Your task to perform on an android device: Go to eBay Image 0: 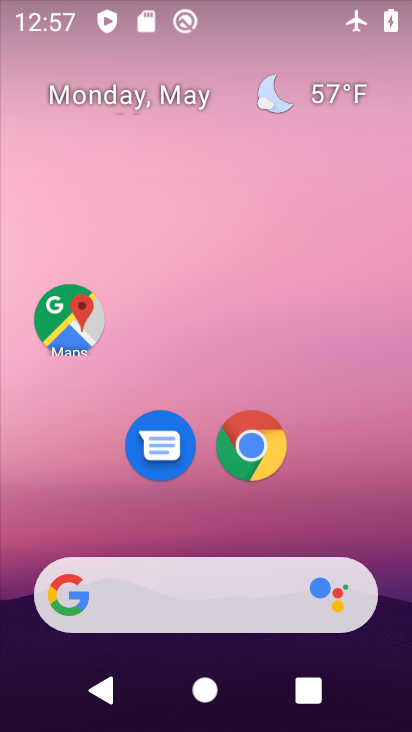
Step 0: drag from (386, 569) to (348, 166)
Your task to perform on an android device: Go to eBay Image 1: 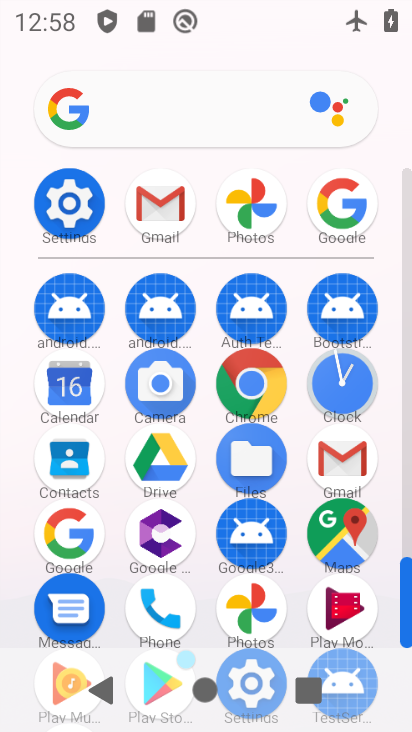
Step 1: click (236, 401)
Your task to perform on an android device: Go to eBay Image 2: 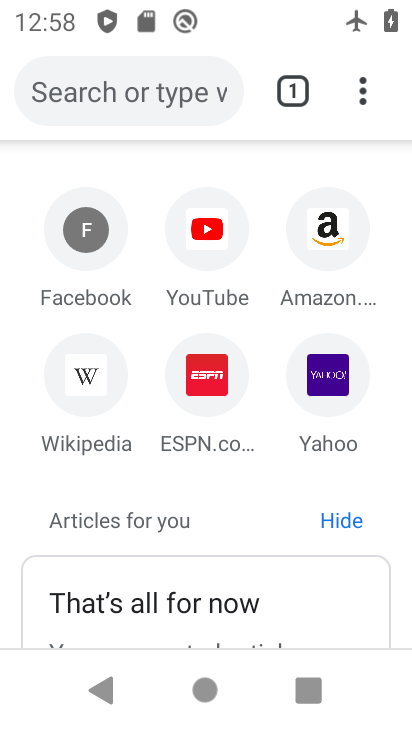
Step 2: click (142, 90)
Your task to perform on an android device: Go to eBay Image 3: 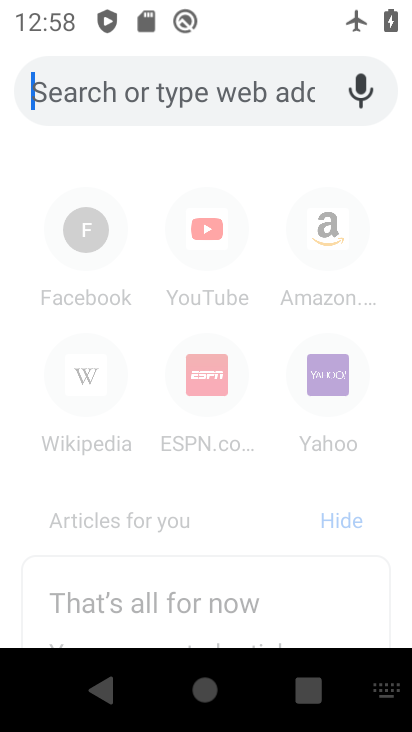
Step 3: type "ebay"
Your task to perform on an android device: Go to eBay Image 4: 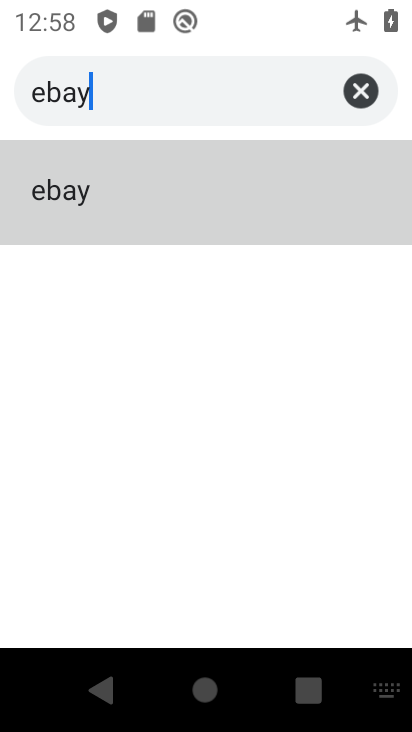
Step 4: click (170, 183)
Your task to perform on an android device: Go to eBay Image 5: 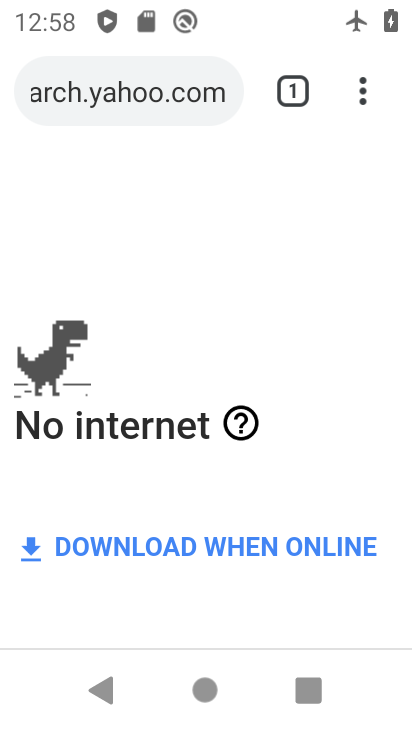
Step 5: task complete